Your task to perform on an android device: check the backup settings in the google photos Image 0: 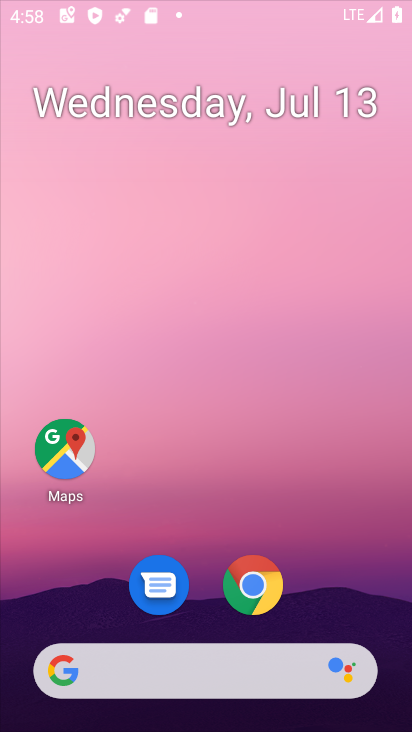
Step 0: click (243, 75)
Your task to perform on an android device: check the backup settings in the google photos Image 1: 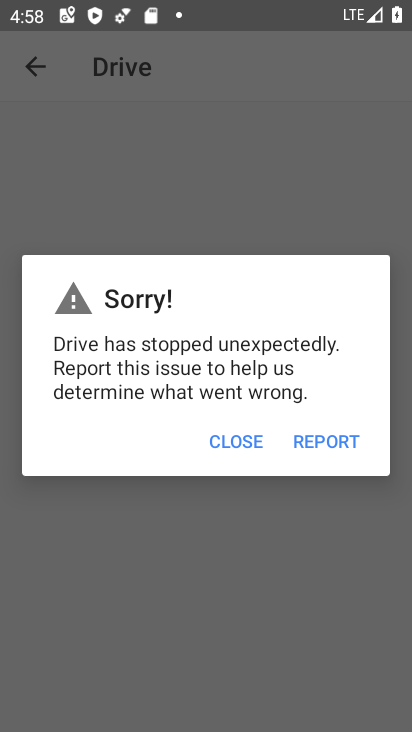
Step 1: press home button
Your task to perform on an android device: check the backup settings in the google photos Image 2: 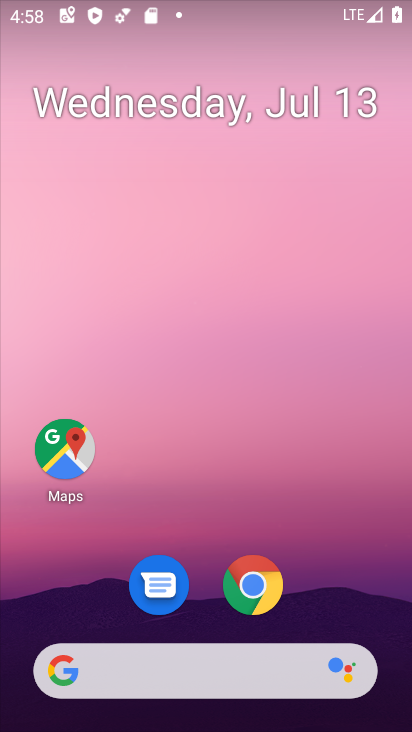
Step 2: drag from (322, 598) to (312, 52)
Your task to perform on an android device: check the backup settings in the google photos Image 3: 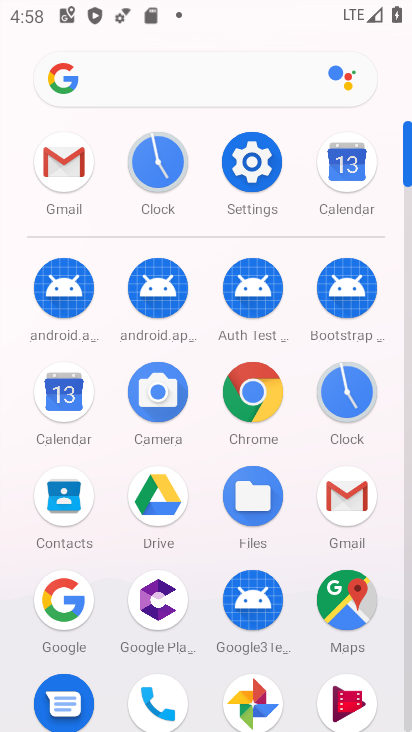
Step 3: drag from (302, 520) to (311, 329)
Your task to perform on an android device: check the backup settings in the google photos Image 4: 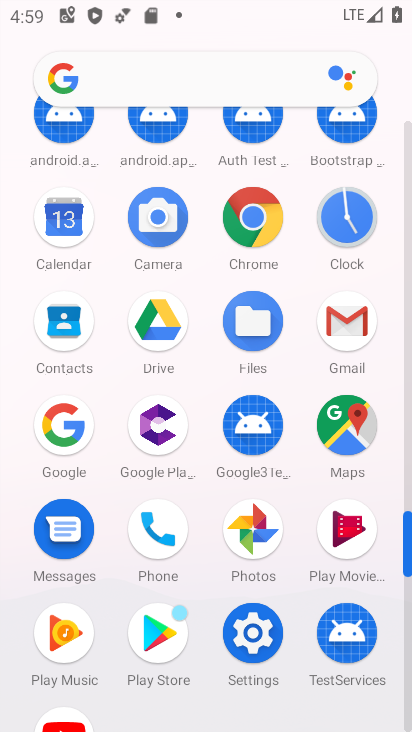
Step 4: click (263, 527)
Your task to perform on an android device: check the backup settings in the google photos Image 5: 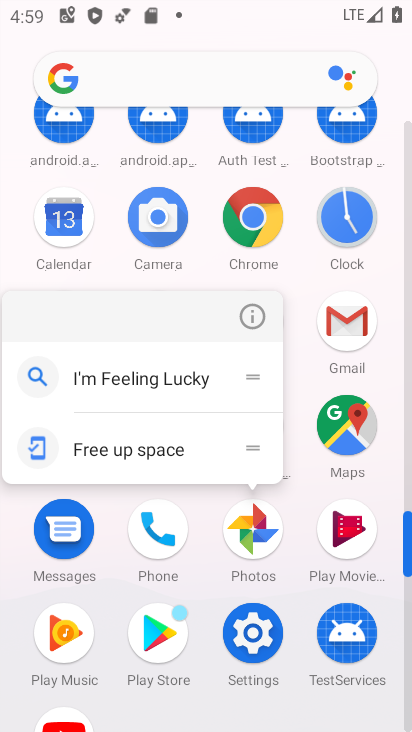
Step 5: click (261, 530)
Your task to perform on an android device: check the backup settings in the google photos Image 6: 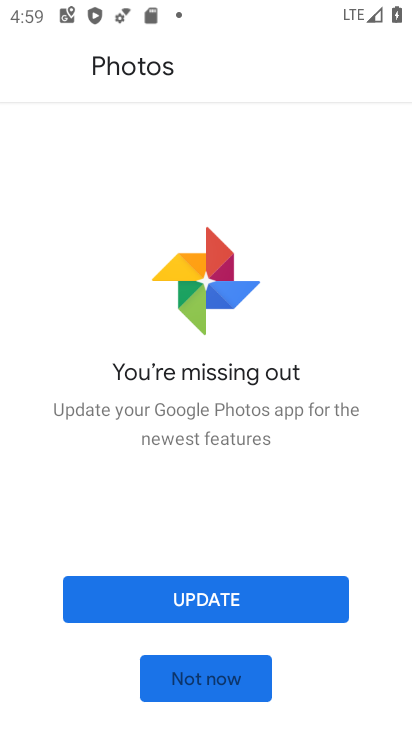
Step 6: click (313, 434)
Your task to perform on an android device: check the backup settings in the google photos Image 7: 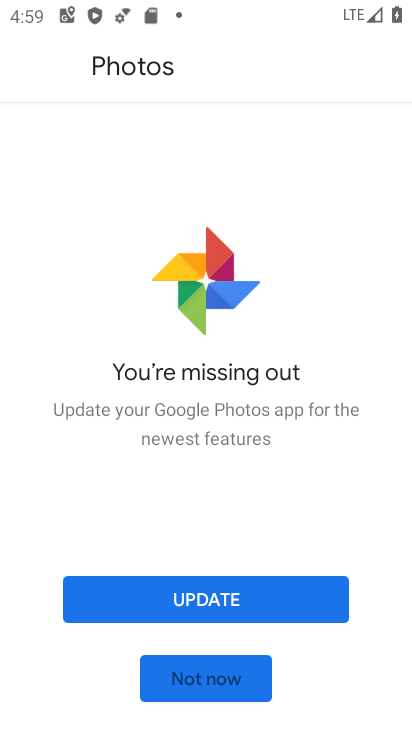
Step 7: click (246, 672)
Your task to perform on an android device: check the backup settings in the google photos Image 8: 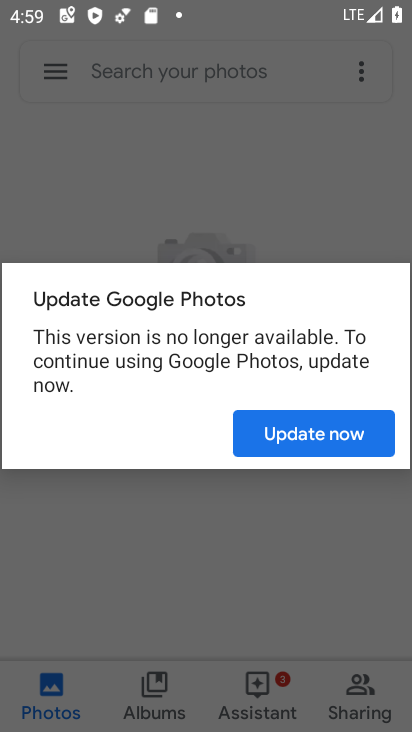
Step 8: click (352, 437)
Your task to perform on an android device: check the backup settings in the google photos Image 9: 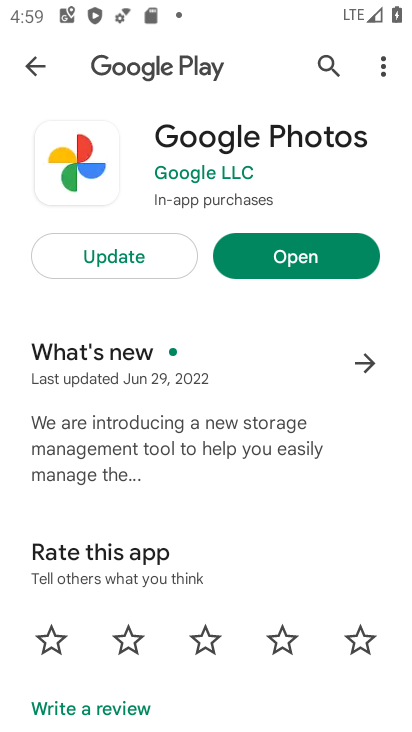
Step 9: click (344, 256)
Your task to perform on an android device: check the backup settings in the google photos Image 10: 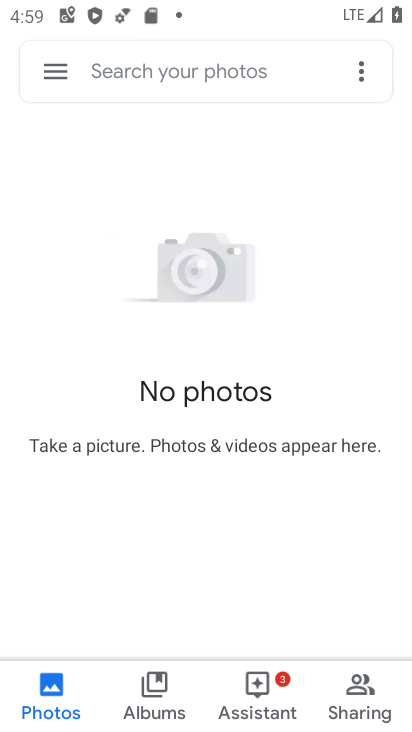
Step 10: click (53, 67)
Your task to perform on an android device: check the backup settings in the google photos Image 11: 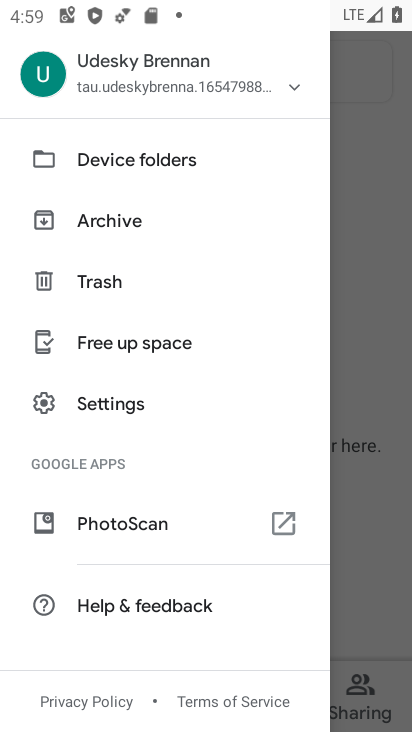
Step 11: click (135, 405)
Your task to perform on an android device: check the backup settings in the google photos Image 12: 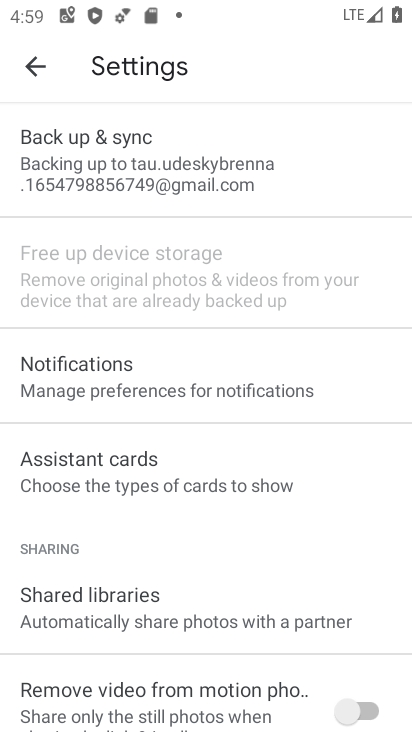
Step 12: click (194, 179)
Your task to perform on an android device: check the backup settings in the google photos Image 13: 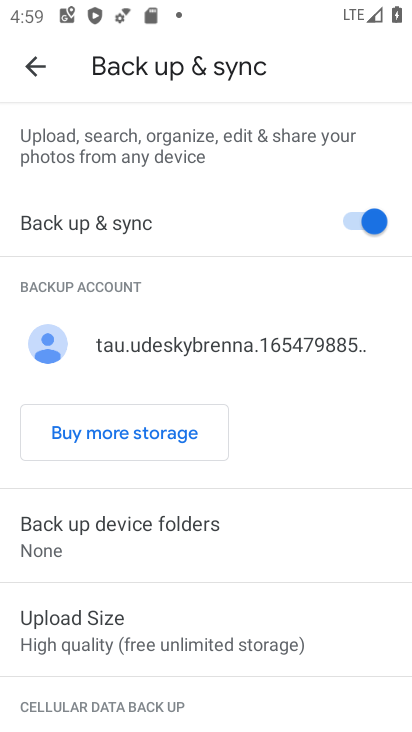
Step 13: task complete